Your task to perform on an android device: Search for seafood restaurants on Google Maps Image 0: 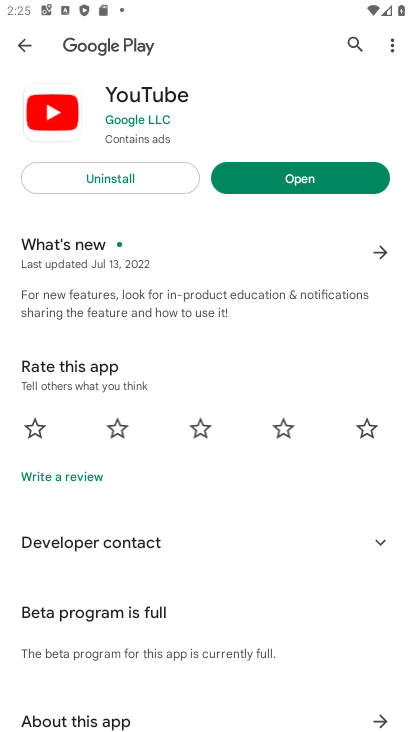
Step 0: press home button
Your task to perform on an android device: Search for seafood restaurants on Google Maps Image 1: 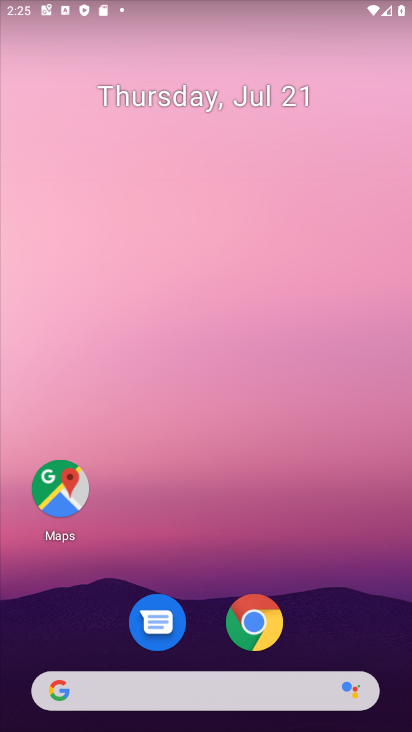
Step 1: click (69, 480)
Your task to perform on an android device: Search for seafood restaurants on Google Maps Image 2: 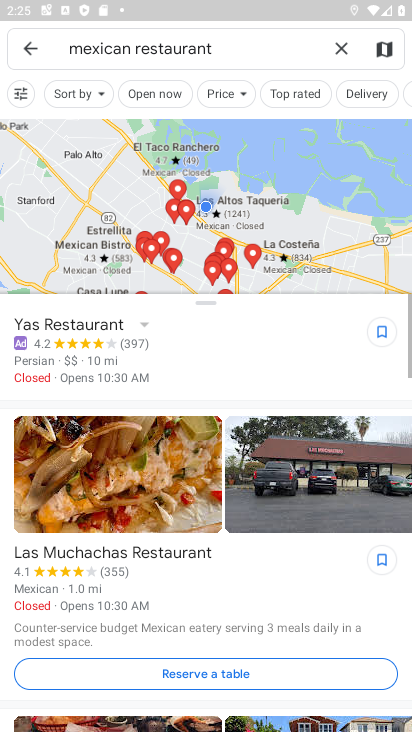
Step 2: click (338, 51)
Your task to perform on an android device: Search for seafood restaurants on Google Maps Image 3: 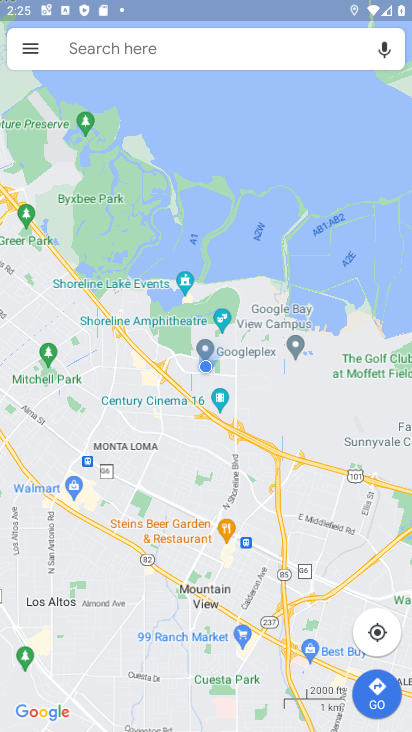
Step 3: click (126, 43)
Your task to perform on an android device: Search for seafood restaurants on Google Maps Image 4: 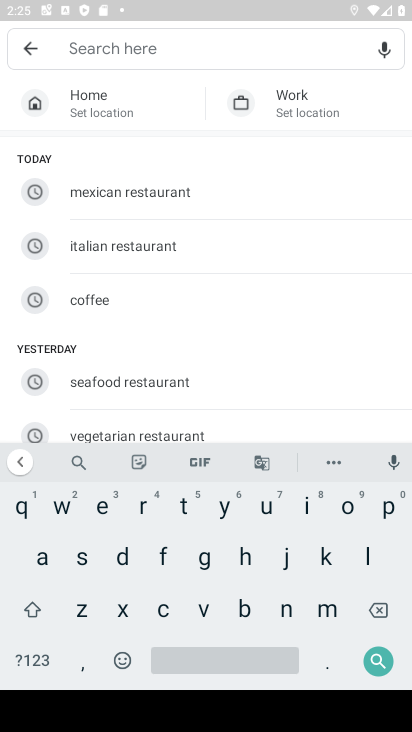
Step 4: click (145, 374)
Your task to perform on an android device: Search for seafood restaurants on Google Maps Image 5: 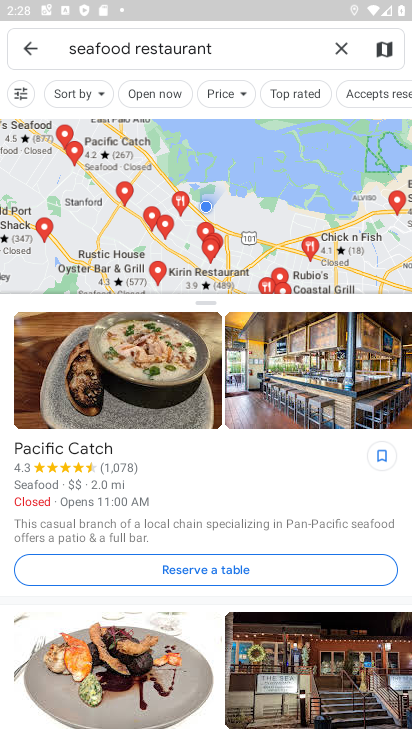
Step 5: task complete